Your task to perform on an android device: check google app version Image 0: 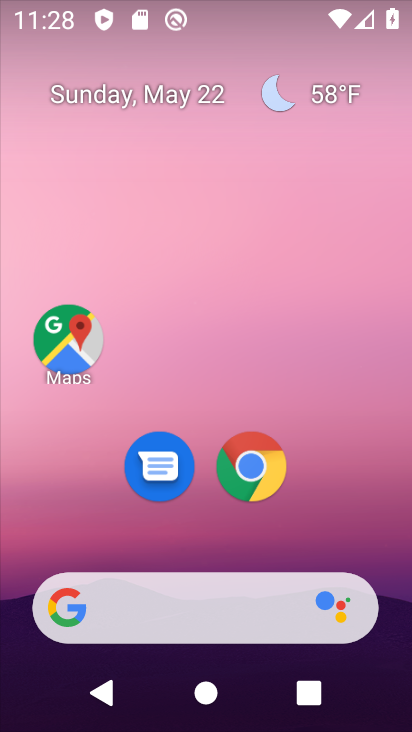
Step 0: drag from (233, 529) to (268, 67)
Your task to perform on an android device: check google app version Image 1: 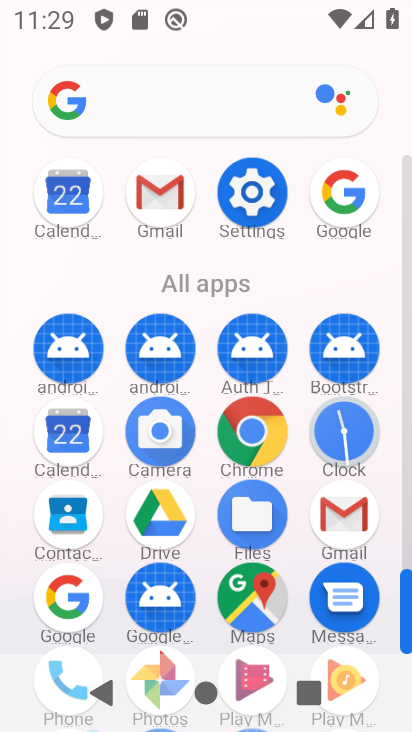
Step 1: click (346, 200)
Your task to perform on an android device: check google app version Image 2: 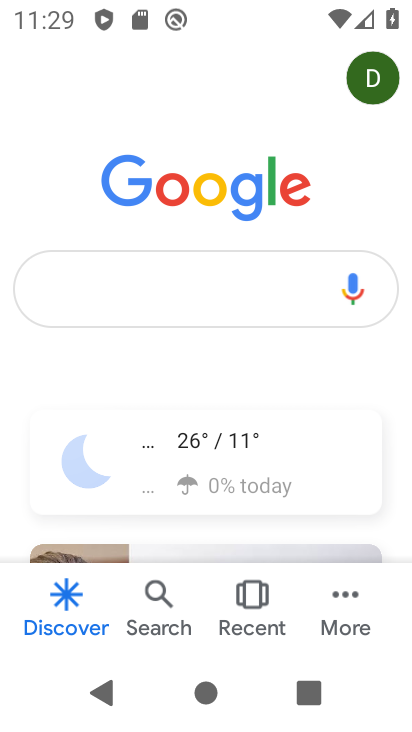
Step 2: click (347, 608)
Your task to perform on an android device: check google app version Image 3: 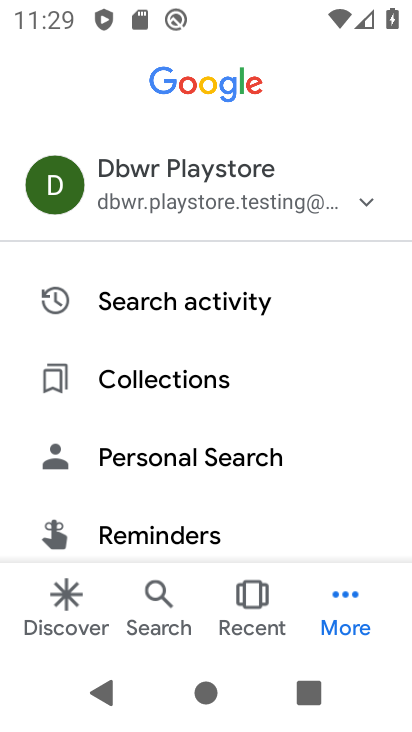
Step 3: drag from (203, 498) to (187, 89)
Your task to perform on an android device: check google app version Image 4: 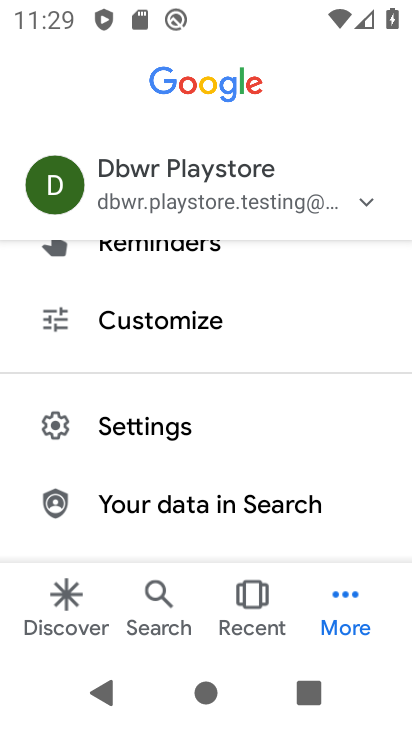
Step 4: click (137, 423)
Your task to perform on an android device: check google app version Image 5: 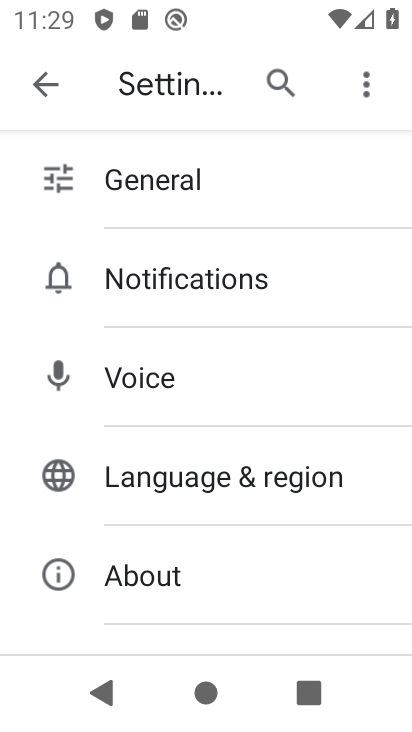
Step 5: drag from (246, 493) to (244, 191)
Your task to perform on an android device: check google app version Image 6: 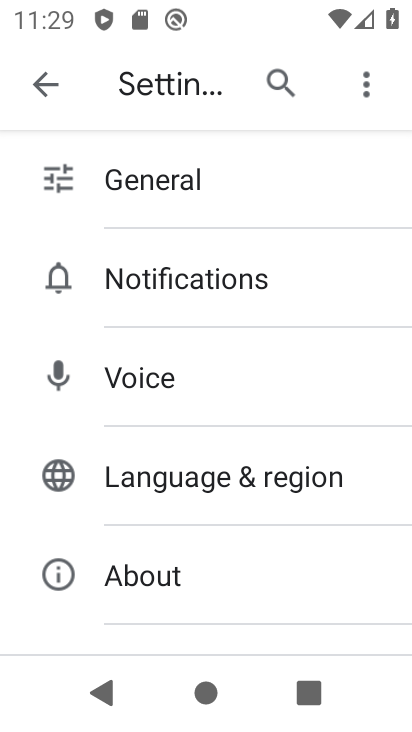
Step 6: click (158, 600)
Your task to perform on an android device: check google app version Image 7: 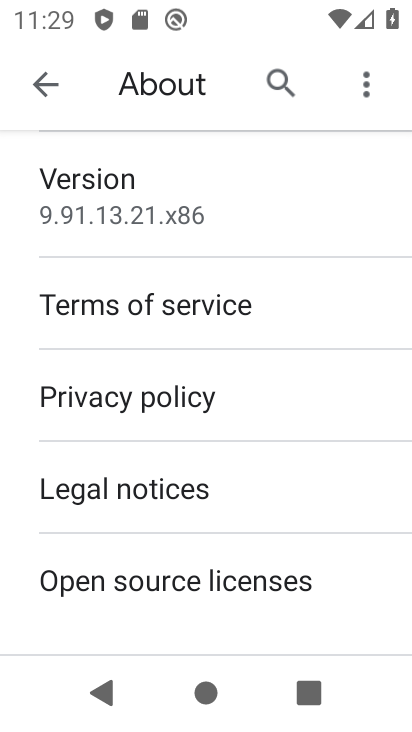
Step 7: click (197, 219)
Your task to perform on an android device: check google app version Image 8: 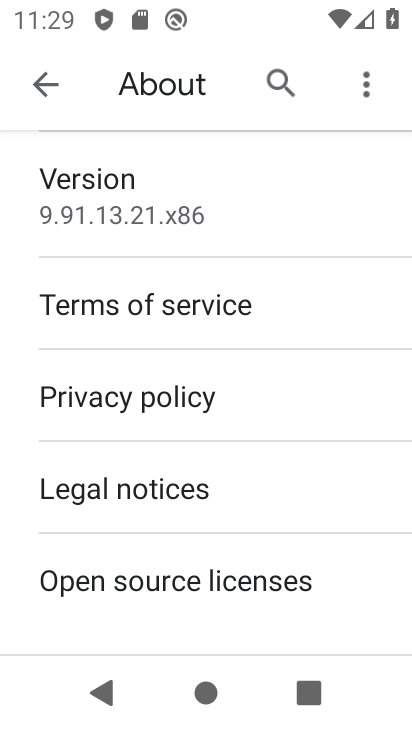
Step 8: task complete